Your task to perform on an android device: Open notification settings Image 0: 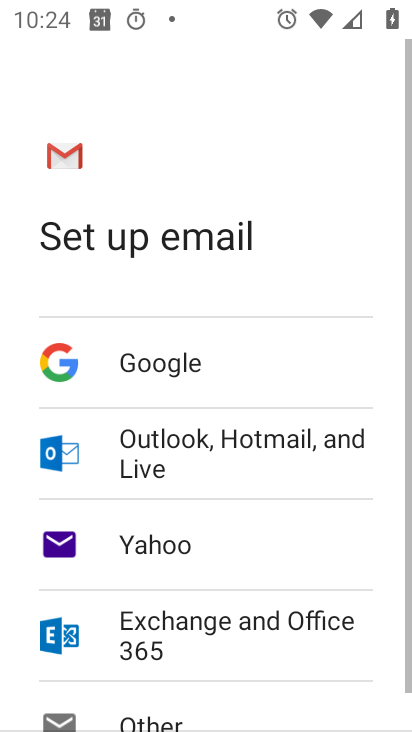
Step 0: press home button
Your task to perform on an android device: Open notification settings Image 1: 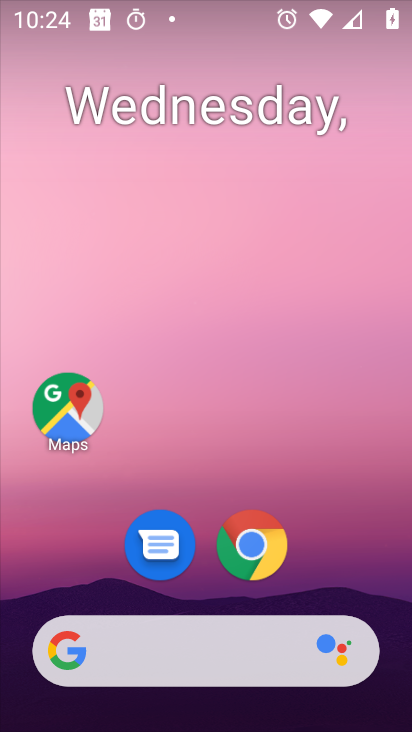
Step 1: drag from (168, 654) to (307, 89)
Your task to perform on an android device: Open notification settings Image 2: 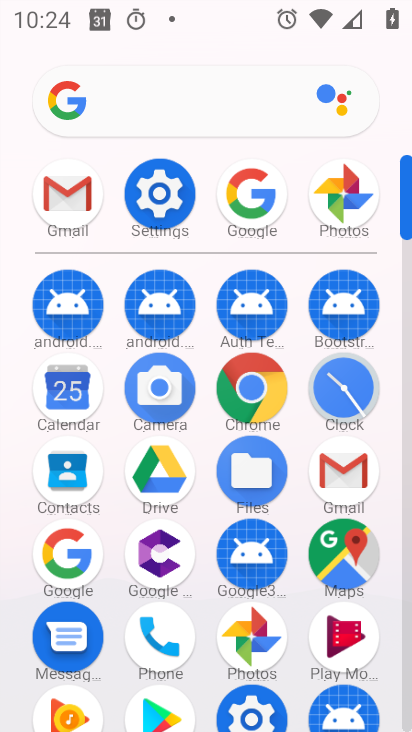
Step 2: click (167, 191)
Your task to perform on an android device: Open notification settings Image 3: 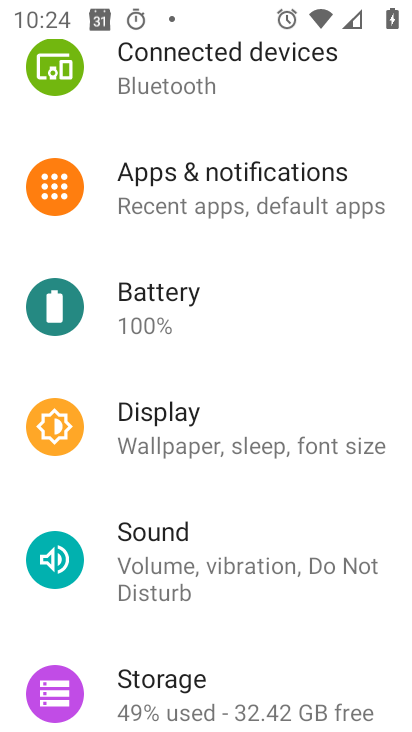
Step 3: click (256, 178)
Your task to perform on an android device: Open notification settings Image 4: 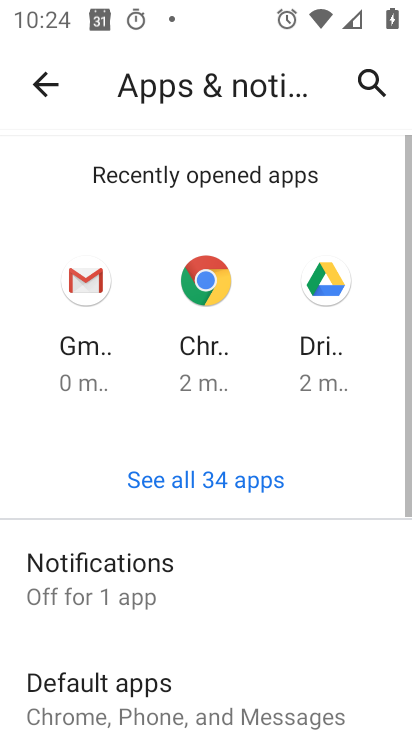
Step 4: click (122, 597)
Your task to perform on an android device: Open notification settings Image 5: 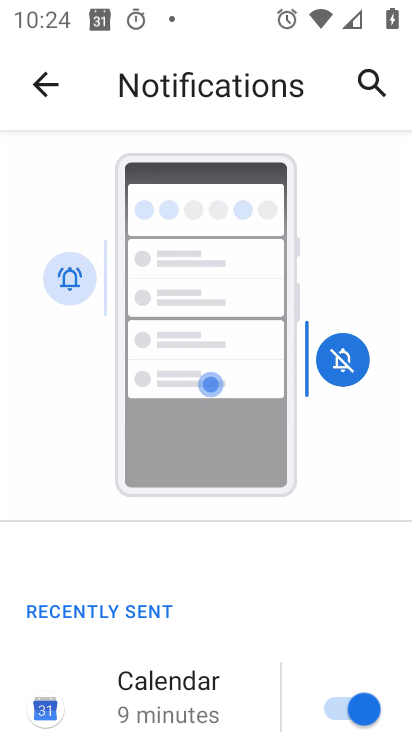
Step 5: task complete